Your task to perform on an android device: refresh tabs in the chrome app Image 0: 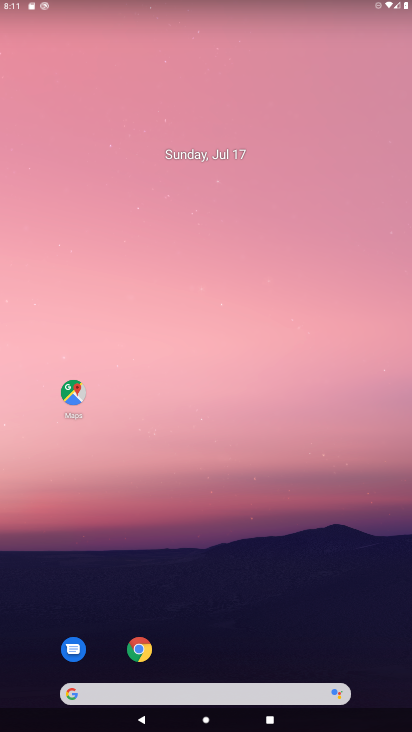
Step 0: click (153, 655)
Your task to perform on an android device: refresh tabs in the chrome app Image 1: 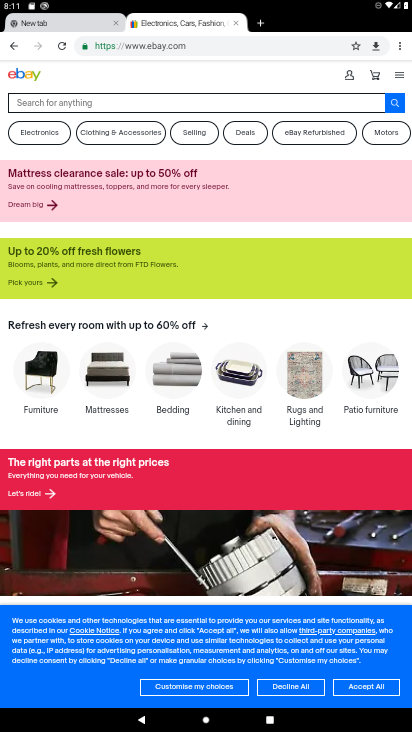
Step 1: click (398, 39)
Your task to perform on an android device: refresh tabs in the chrome app Image 2: 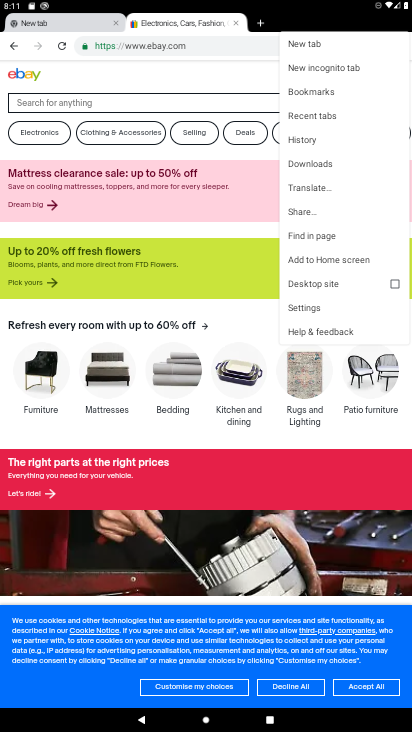
Step 2: click (58, 43)
Your task to perform on an android device: refresh tabs in the chrome app Image 3: 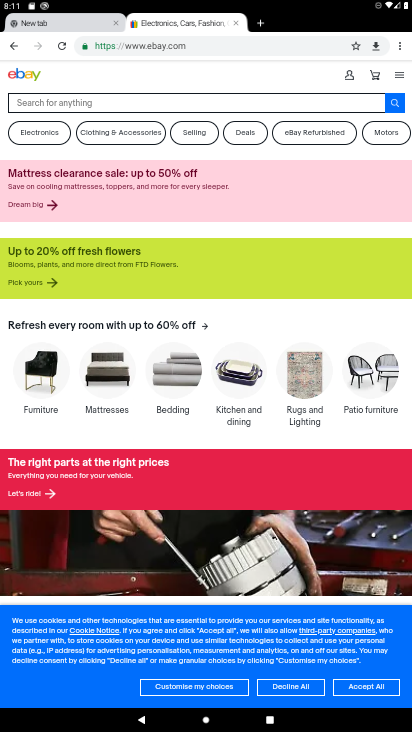
Step 3: click (58, 43)
Your task to perform on an android device: refresh tabs in the chrome app Image 4: 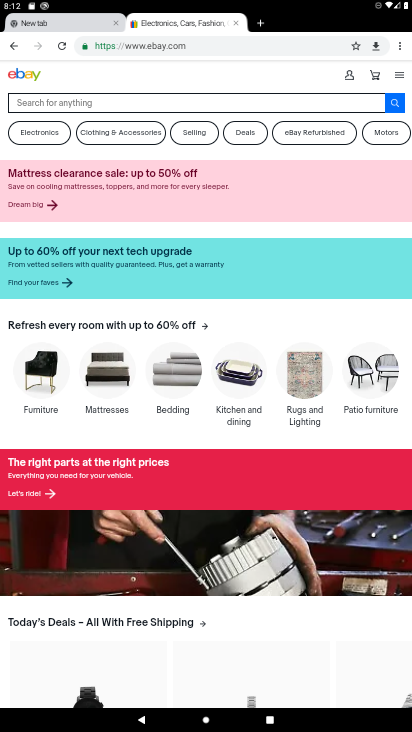
Step 4: task complete